Your task to perform on an android device: Go to sound settings Image 0: 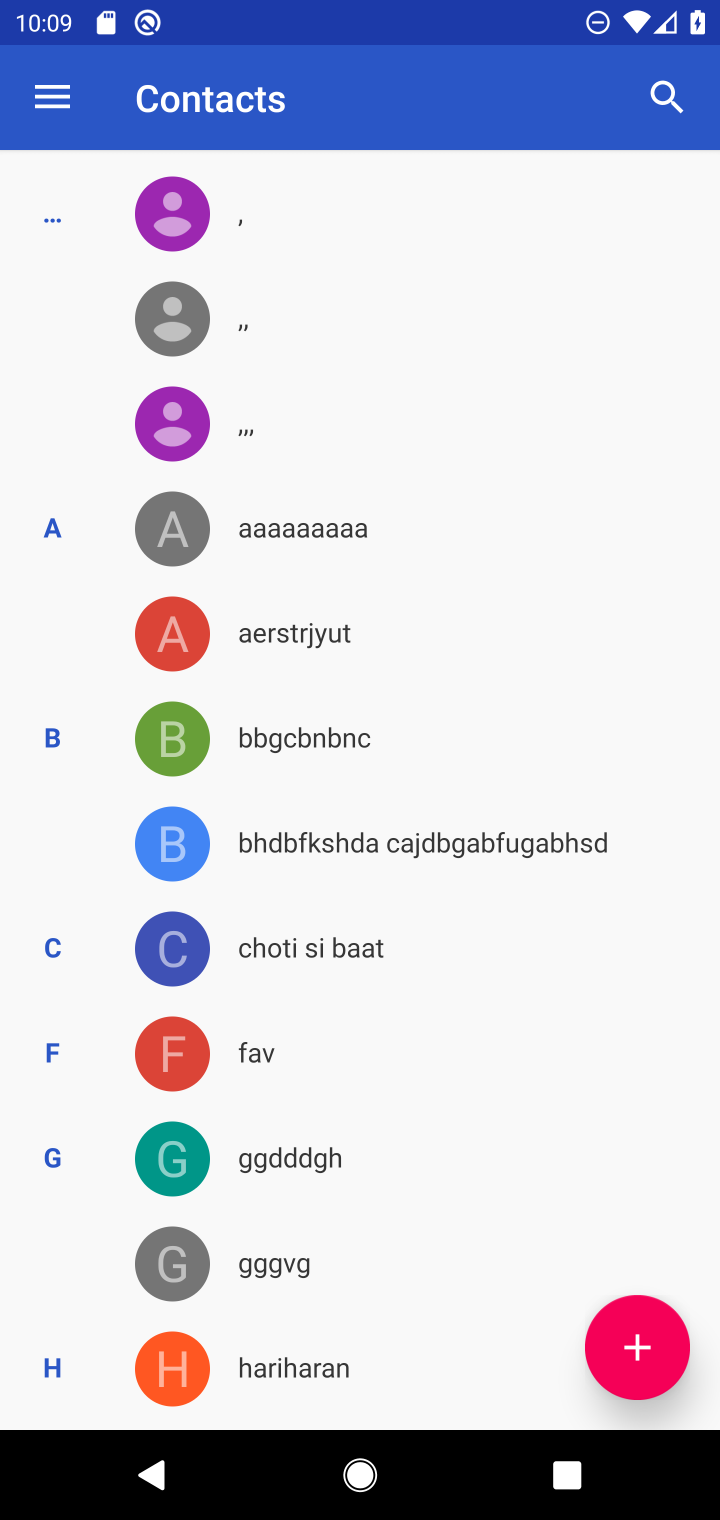
Step 0: press home button
Your task to perform on an android device: Go to sound settings Image 1: 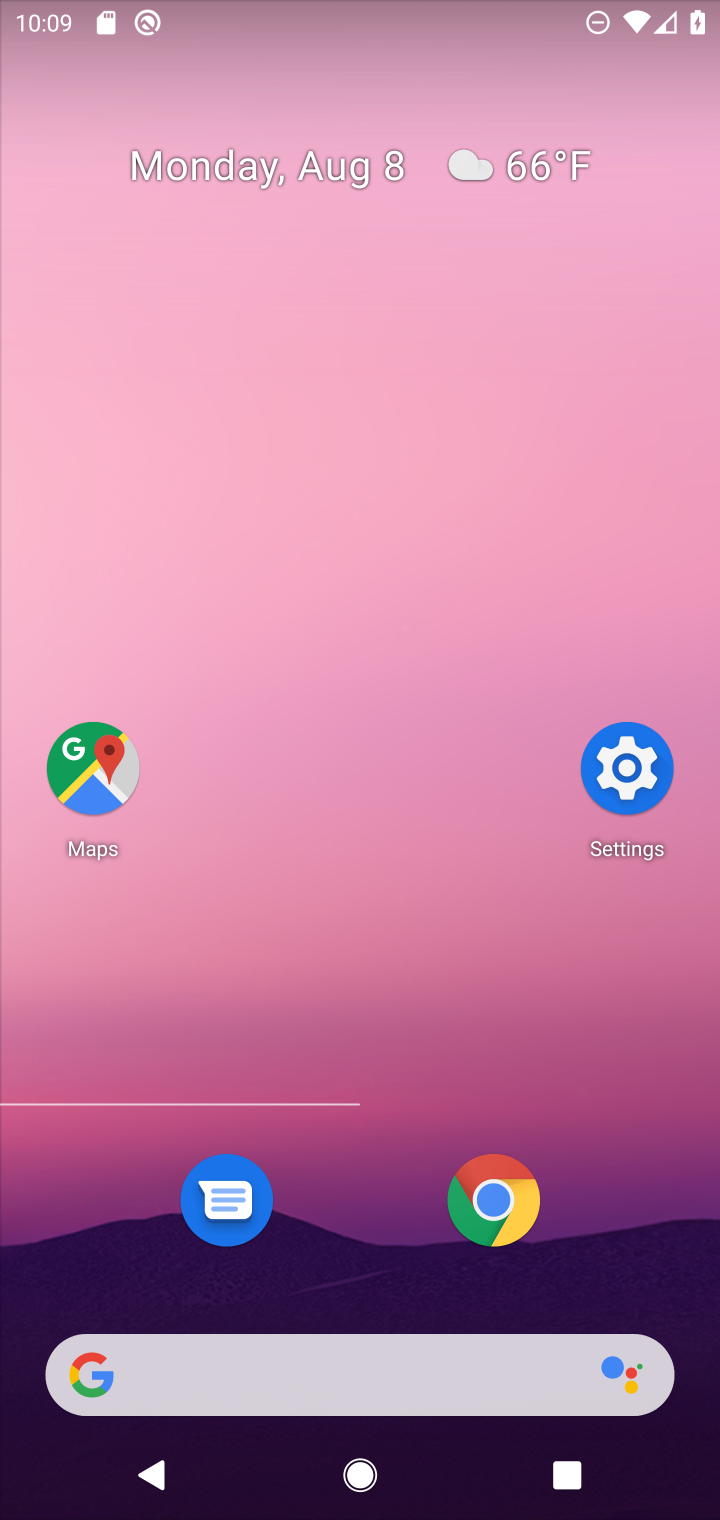
Step 1: click (625, 748)
Your task to perform on an android device: Go to sound settings Image 2: 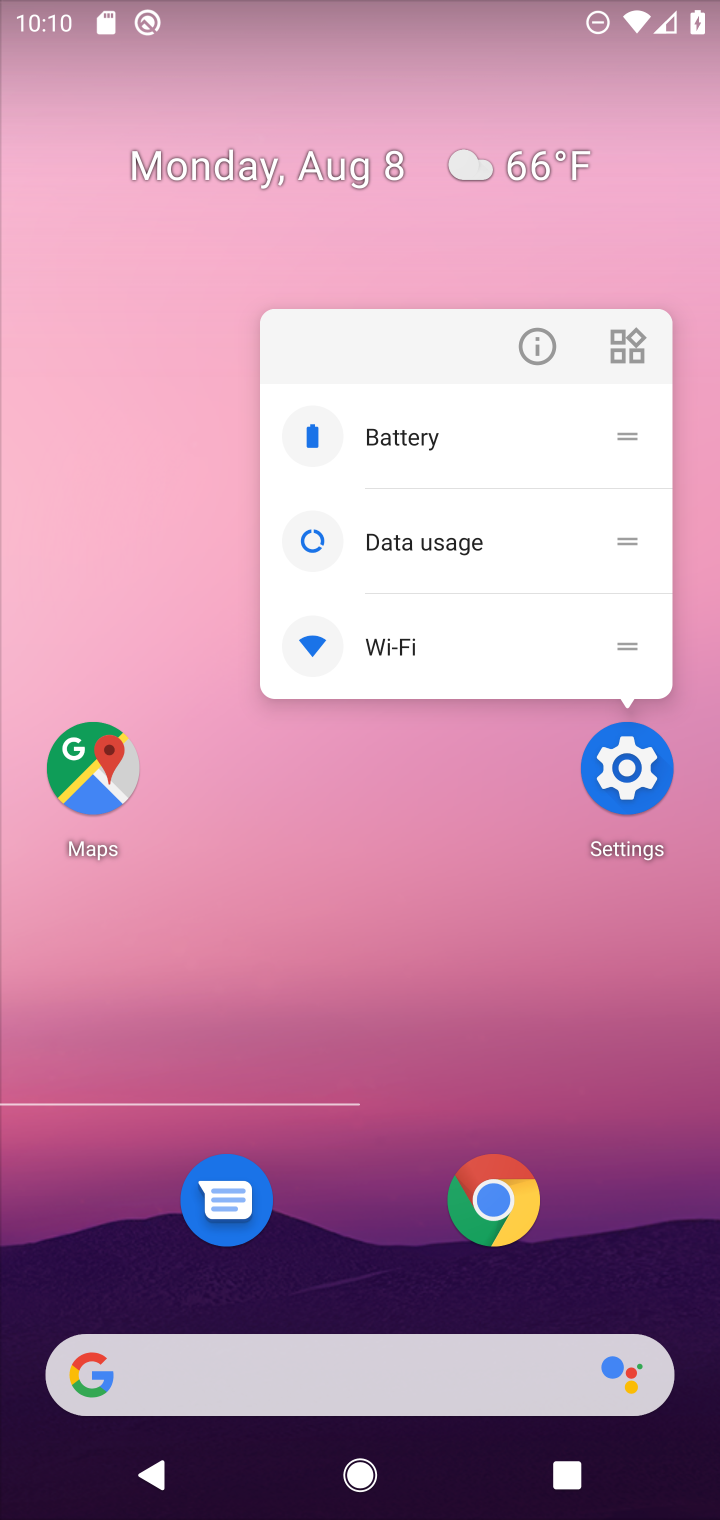
Step 2: click (625, 766)
Your task to perform on an android device: Go to sound settings Image 3: 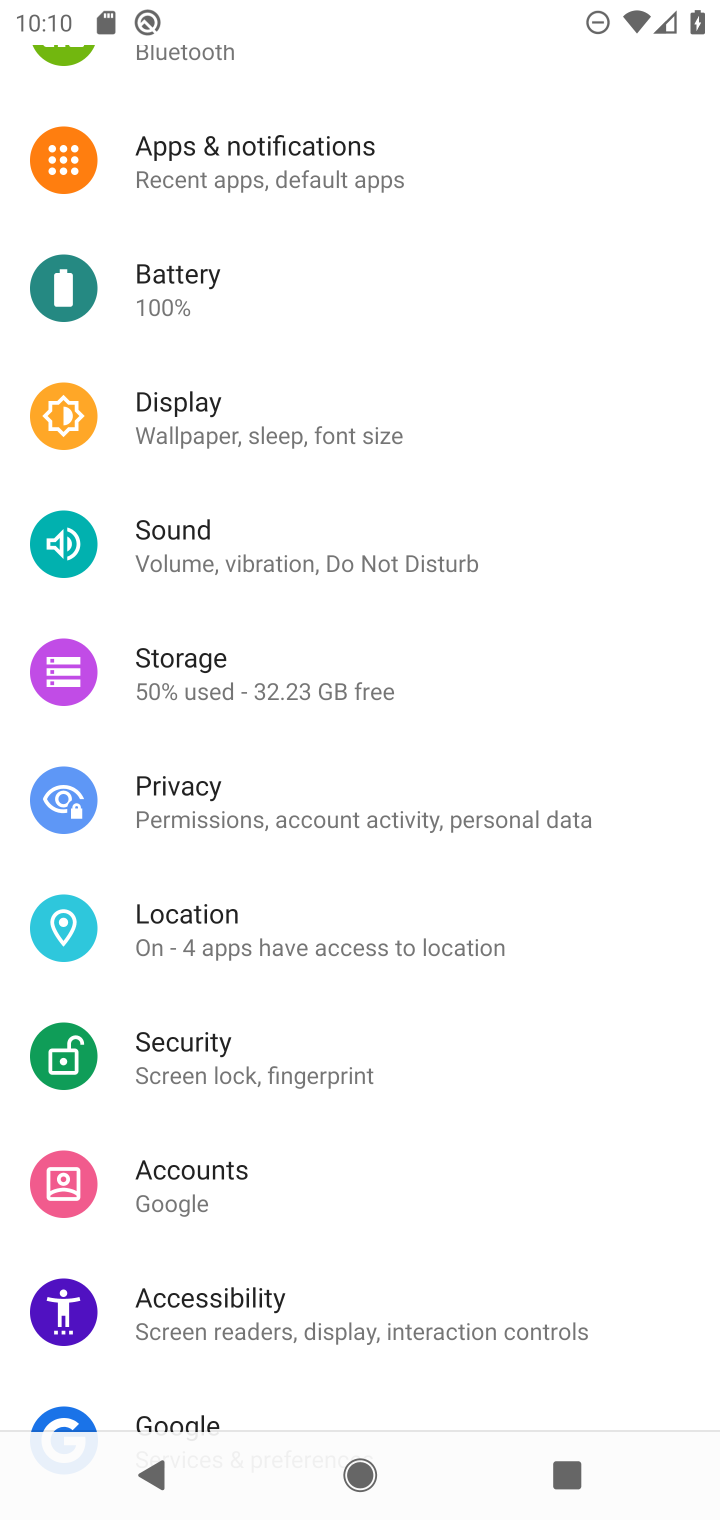
Step 3: click (275, 325)
Your task to perform on an android device: Go to sound settings Image 4: 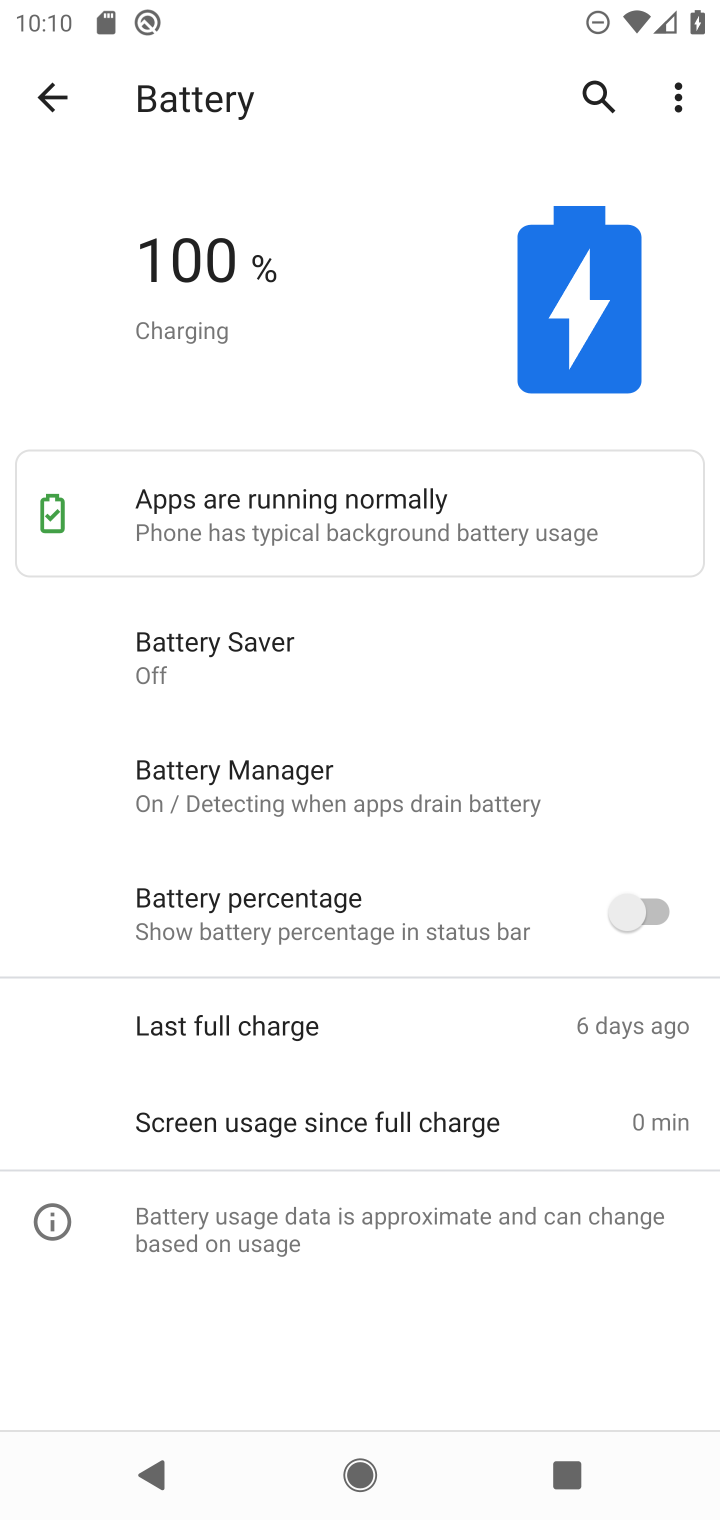
Step 4: click (50, 94)
Your task to perform on an android device: Go to sound settings Image 5: 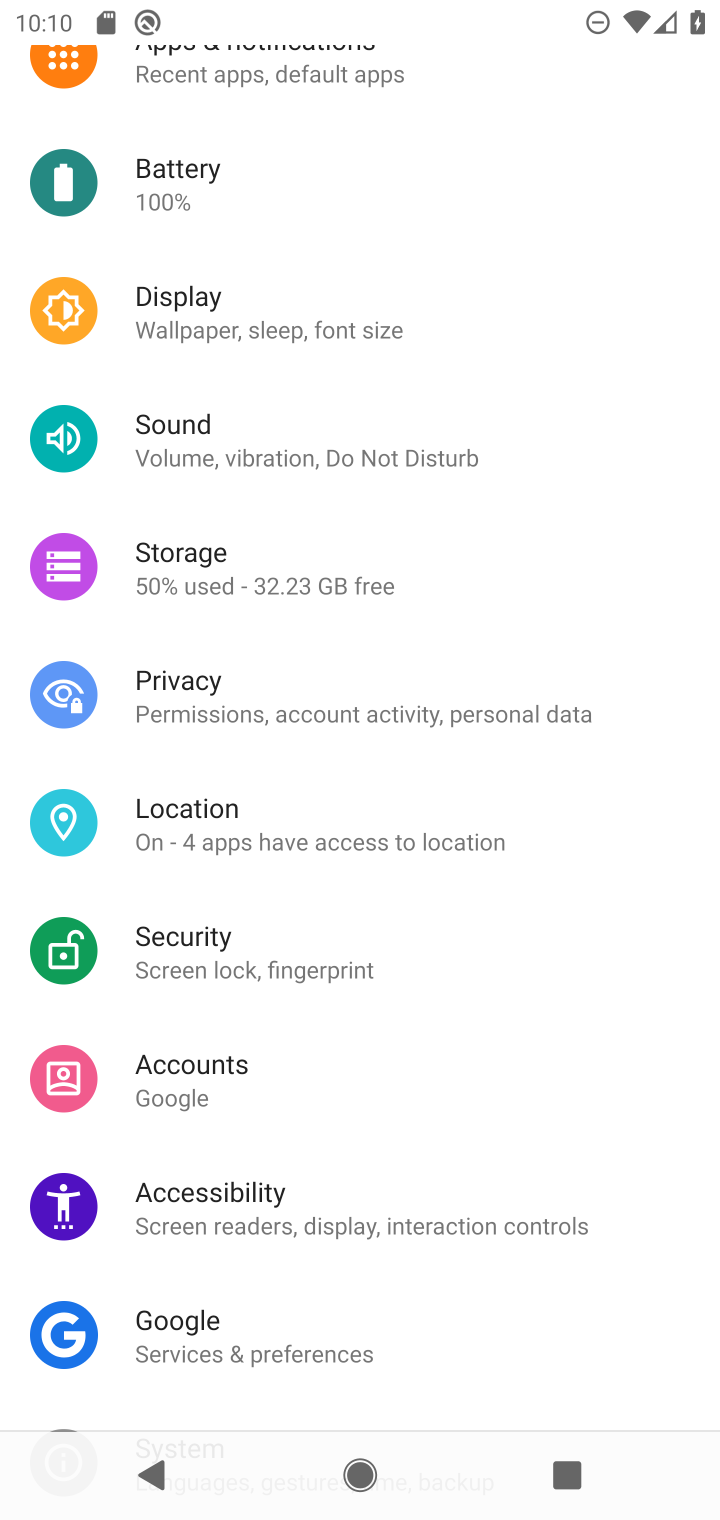
Step 5: click (201, 432)
Your task to perform on an android device: Go to sound settings Image 6: 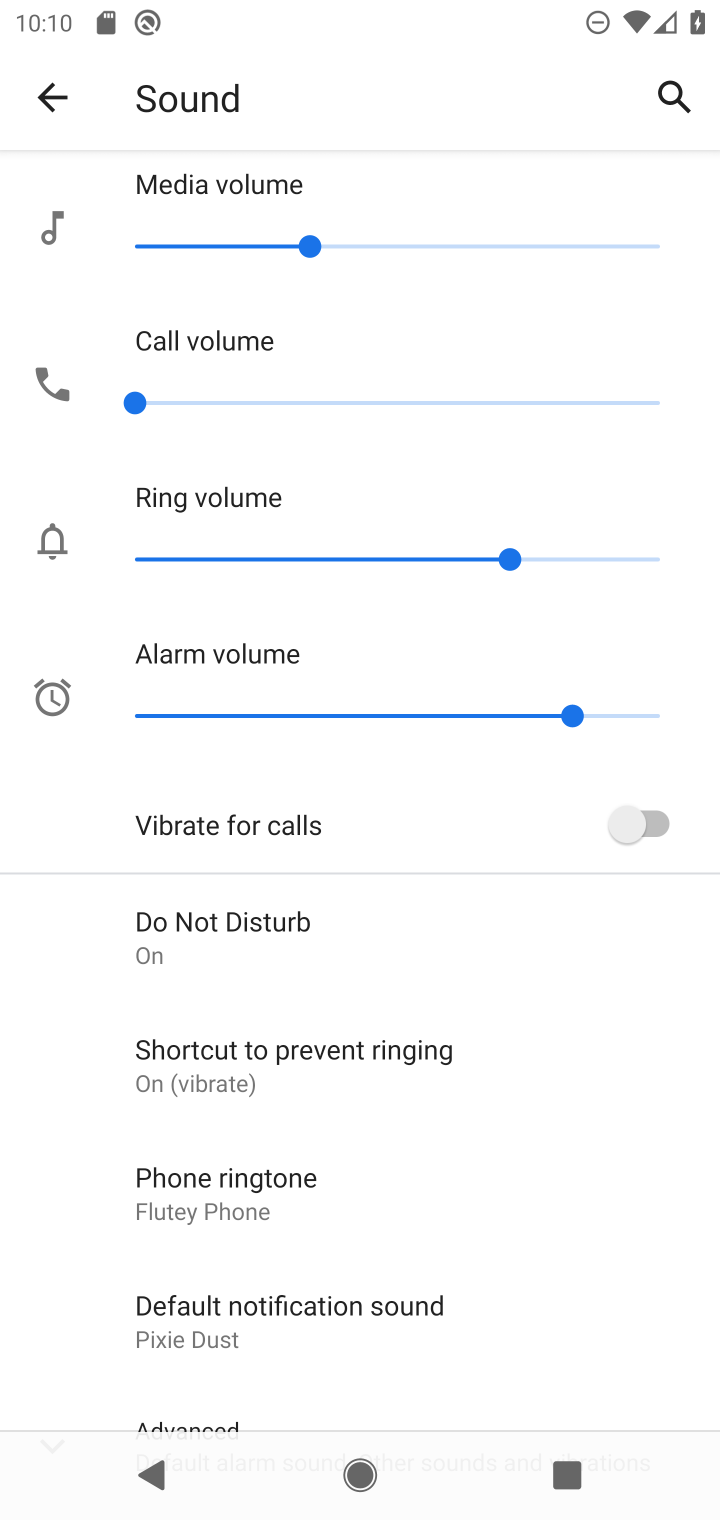
Step 6: task complete